Your task to perform on an android device: Go to Maps Image 0: 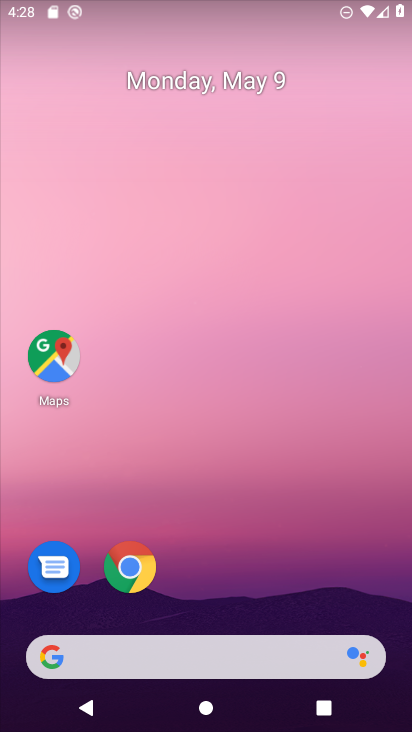
Step 0: click (62, 355)
Your task to perform on an android device: Go to Maps Image 1: 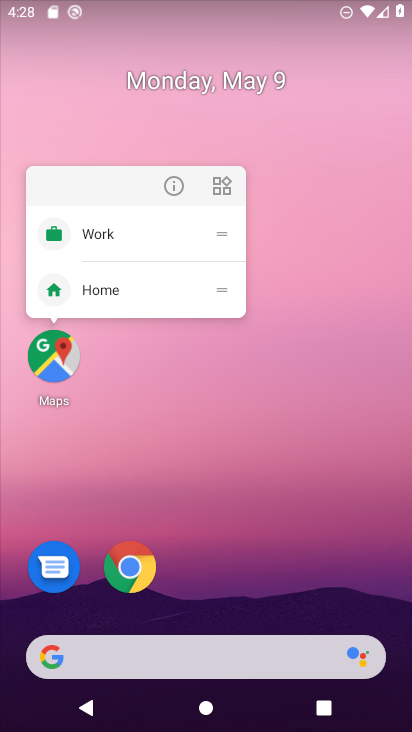
Step 1: click (61, 354)
Your task to perform on an android device: Go to Maps Image 2: 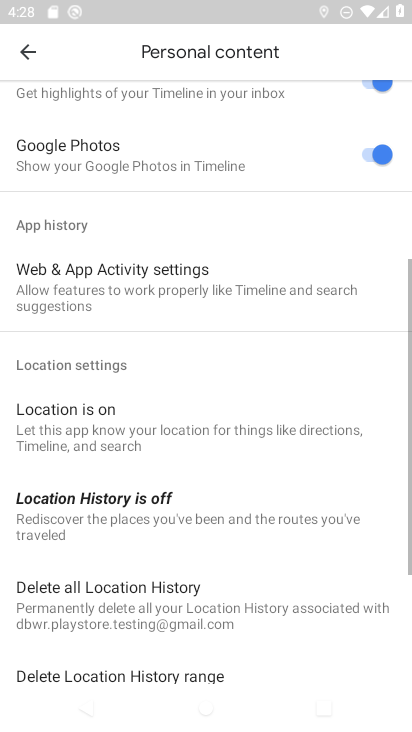
Step 2: click (28, 51)
Your task to perform on an android device: Go to Maps Image 3: 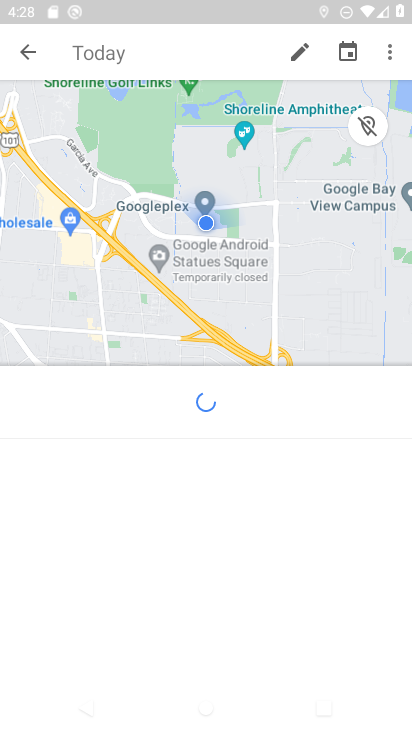
Step 3: click (33, 55)
Your task to perform on an android device: Go to Maps Image 4: 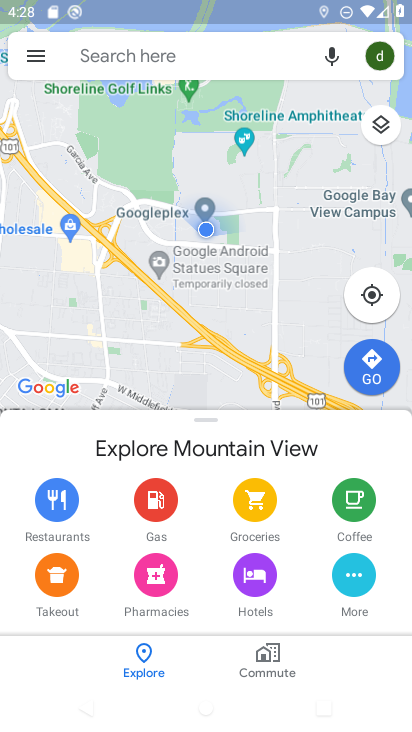
Step 4: task complete